Your task to perform on an android device: Open display settings Image 0: 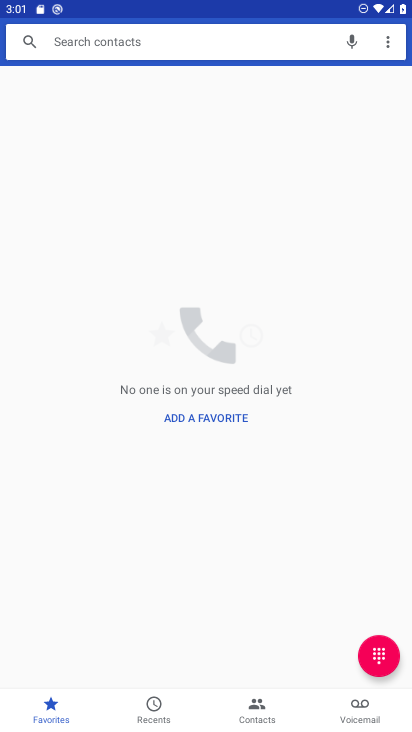
Step 0: press home button
Your task to perform on an android device: Open display settings Image 1: 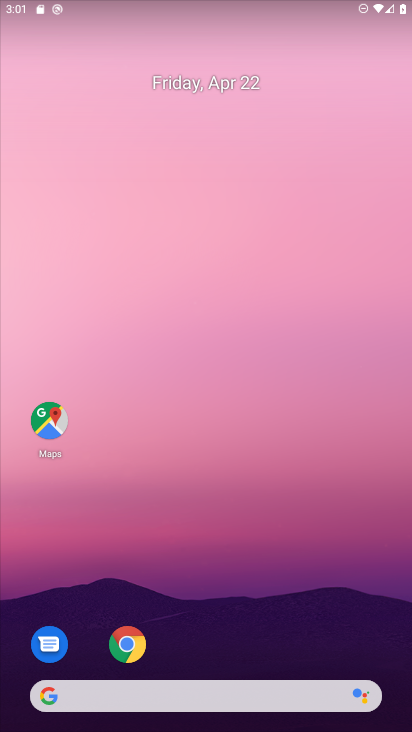
Step 1: drag from (268, 608) to (288, 189)
Your task to perform on an android device: Open display settings Image 2: 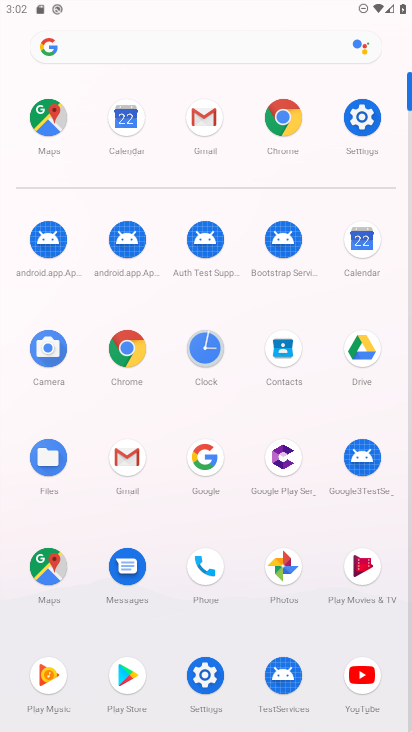
Step 2: click (372, 106)
Your task to perform on an android device: Open display settings Image 3: 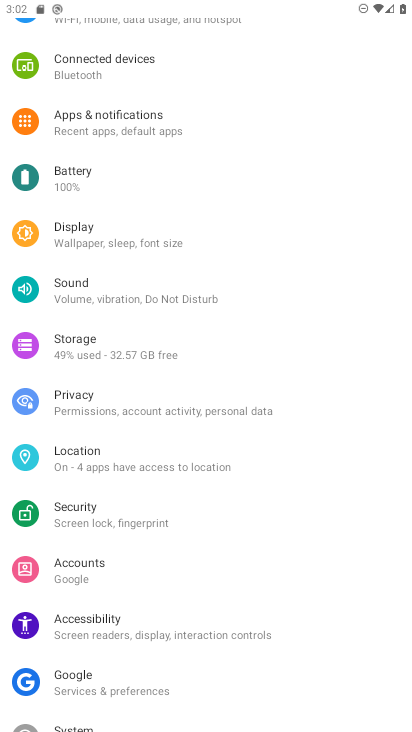
Step 3: click (105, 250)
Your task to perform on an android device: Open display settings Image 4: 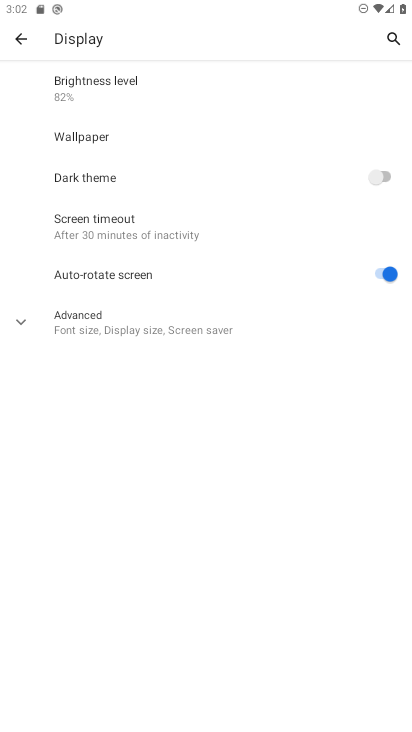
Step 4: task complete